Your task to perform on an android device: Go to wifi settings Image 0: 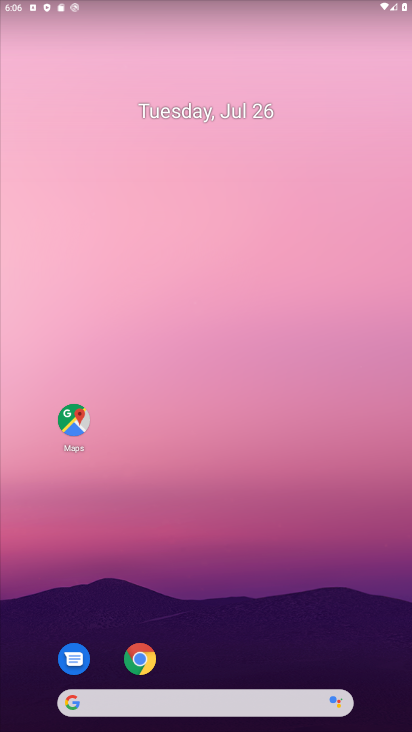
Step 0: drag from (250, 573) to (216, 130)
Your task to perform on an android device: Go to wifi settings Image 1: 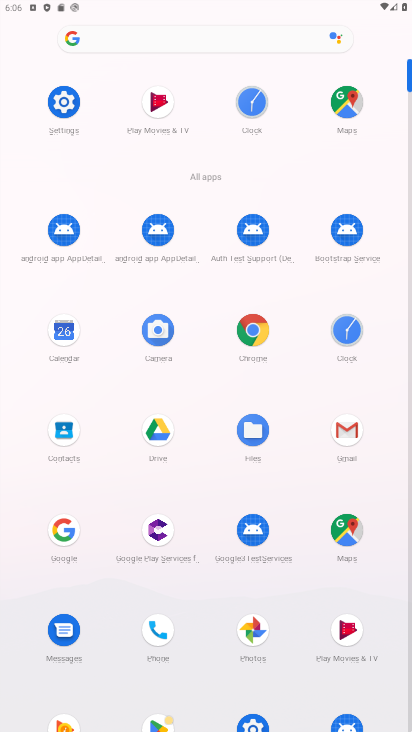
Step 1: click (74, 107)
Your task to perform on an android device: Go to wifi settings Image 2: 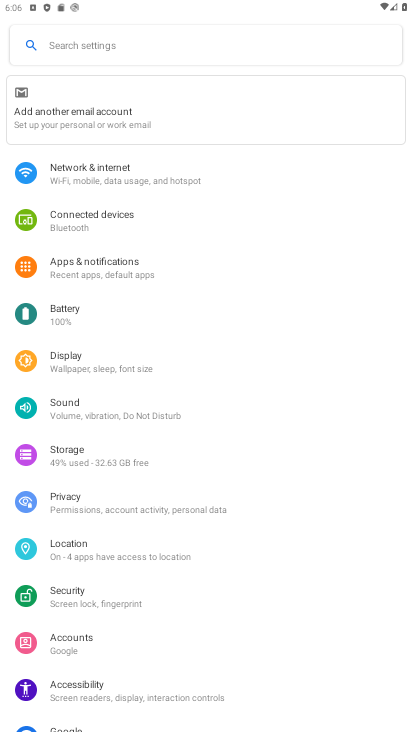
Step 2: click (133, 172)
Your task to perform on an android device: Go to wifi settings Image 3: 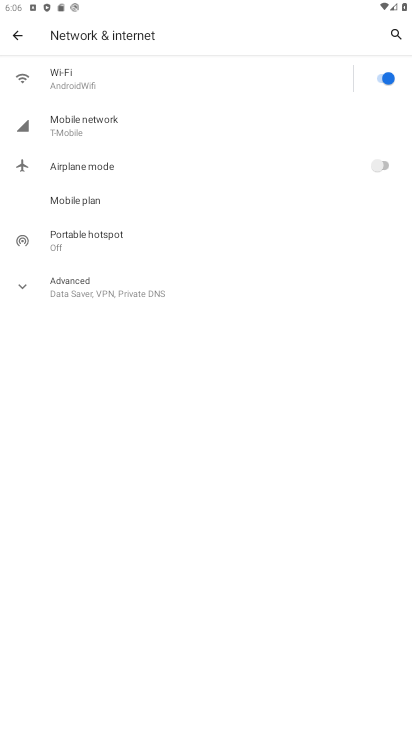
Step 3: task complete